Your task to perform on an android device: Go to sound settings Image 0: 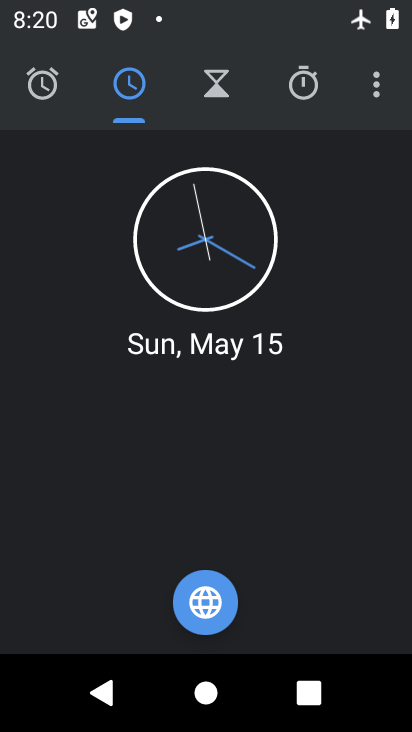
Step 0: press home button
Your task to perform on an android device: Go to sound settings Image 1: 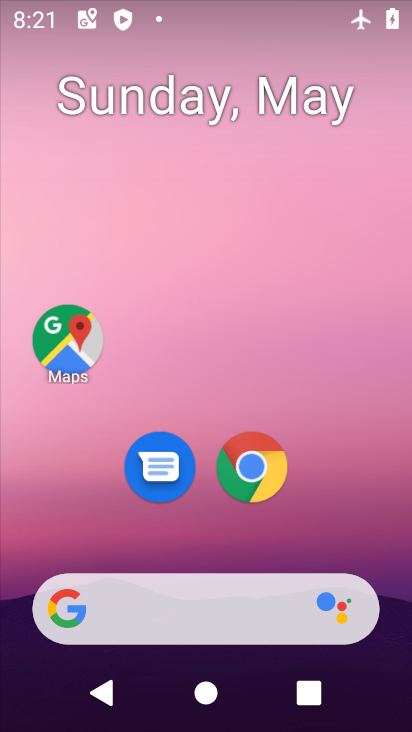
Step 1: drag from (178, 551) to (174, 15)
Your task to perform on an android device: Go to sound settings Image 2: 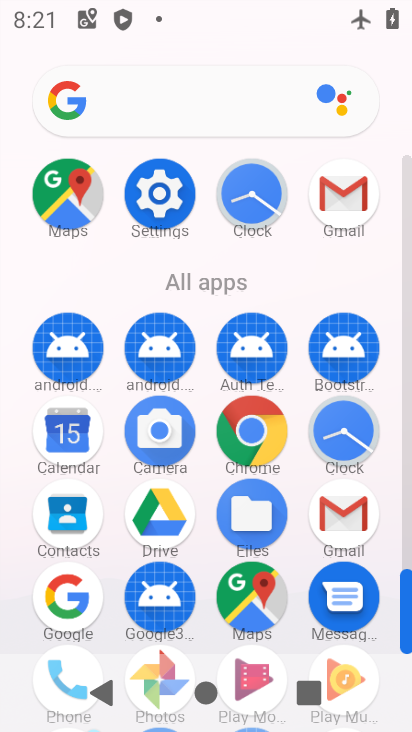
Step 2: click (152, 185)
Your task to perform on an android device: Go to sound settings Image 3: 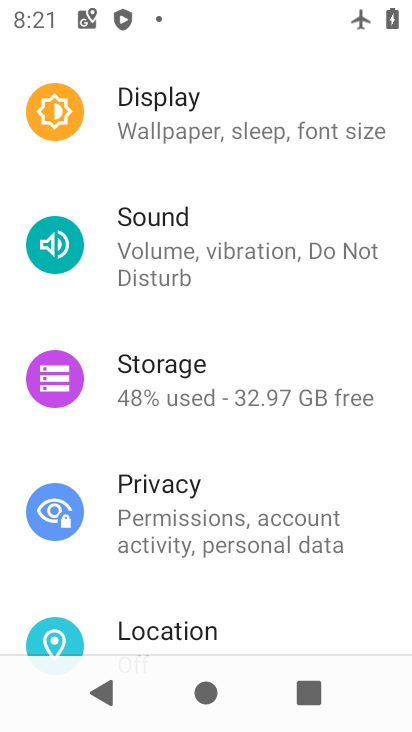
Step 3: click (152, 219)
Your task to perform on an android device: Go to sound settings Image 4: 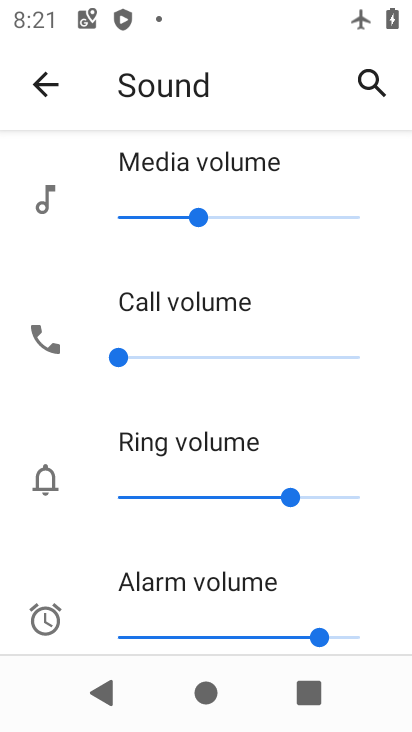
Step 4: task complete